Your task to perform on an android device: Open Google Chrome and click the shortcut for Amazon.com Image 0: 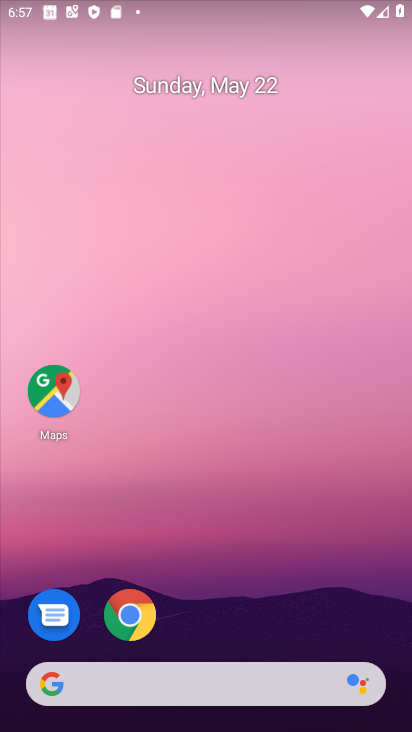
Step 0: click (131, 616)
Your task to perform on an android device: Open Google Chrome and click the shortcut for Amazon.com Image 1: 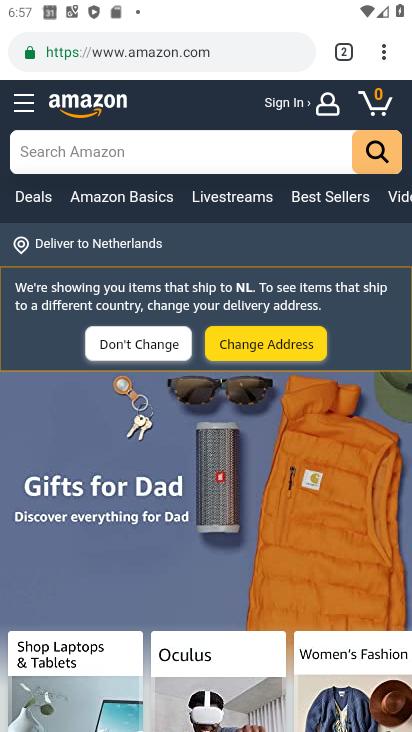
Step 1: task complete